Your task to perform on an android device: turn on wifi Image 0: 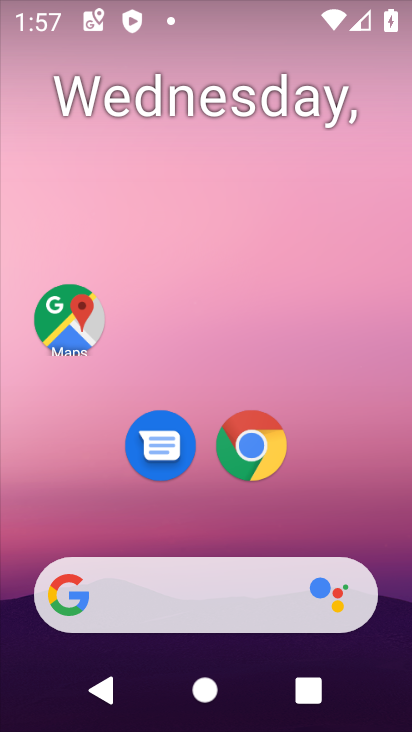
Step 0: drag from (215, 532) to (247, 81)
Your task to perform on an android device: turn on wifi Image 1: 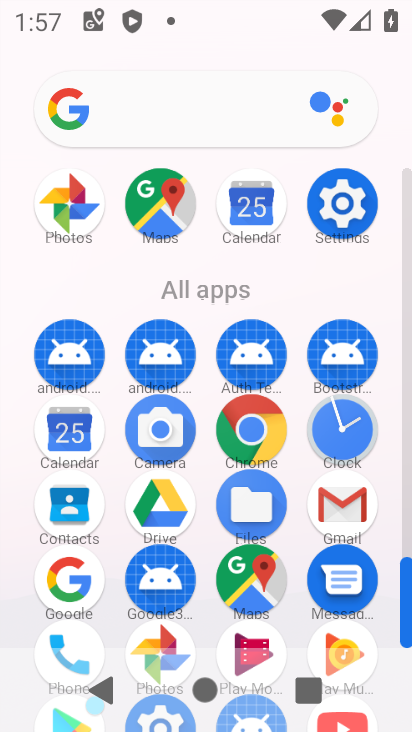
Step 1: click (343, 204)
Your task to perform on an android device: turn on wifi Image 2: 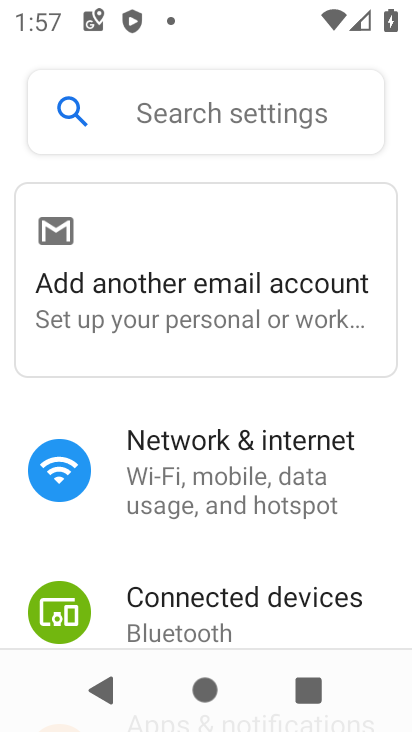
Step 2: click (166, 423)
Your task to perform on an android device: turn on wifi Image 3: 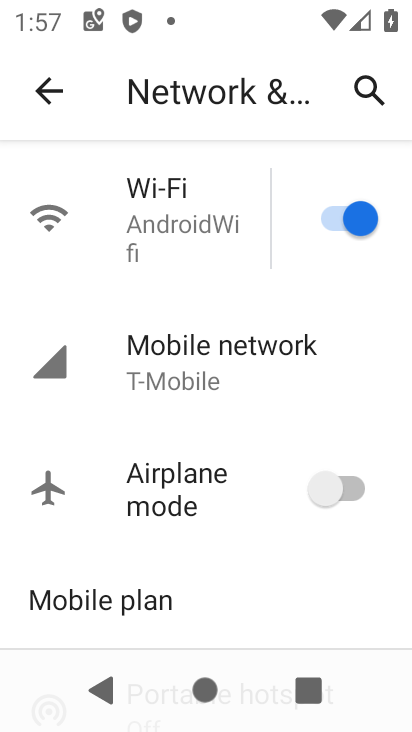
Step 3: task complete